Your task to perform on an android device: Go to notification settings Image 0: 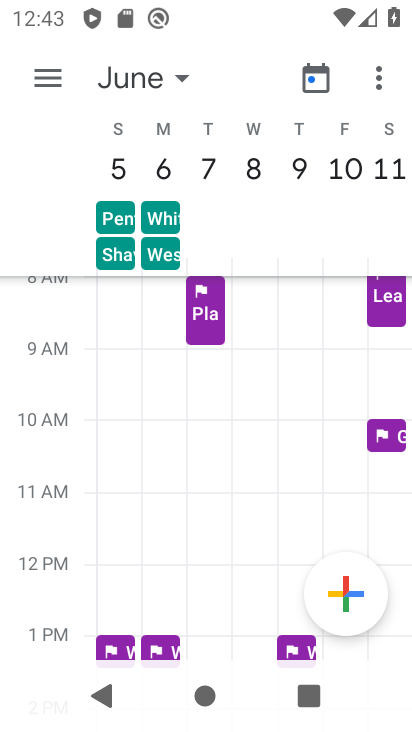
Step 0: press home button
Your task to perform on an android device: Go to notification settings Image 1: 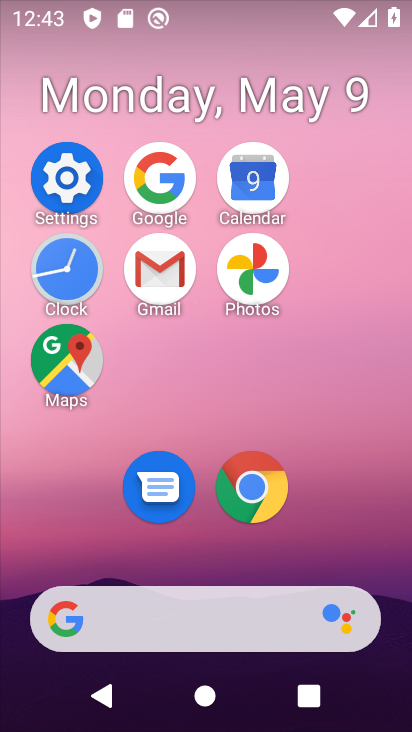
Step 1: click (89, 207)
Your task to perform on an android device: Go to notification settings Image 2: 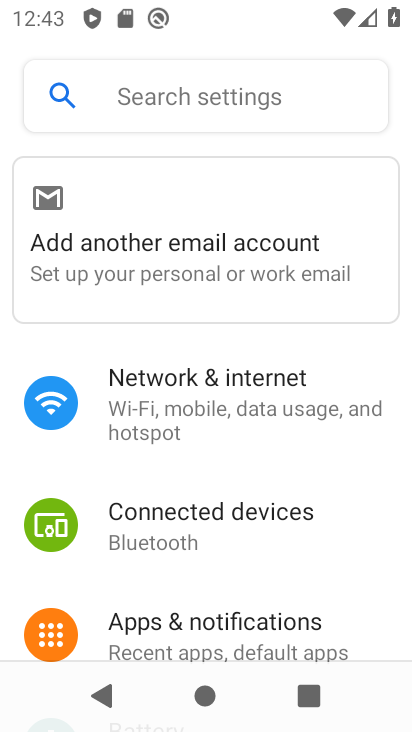
Step 2: click (273, 666)
Your task to perform on an android device: Go to notification settings Image 3: 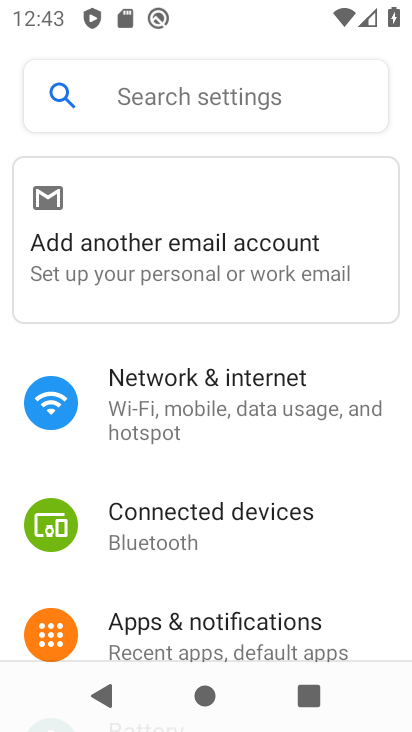
Step 3: click (274, 639)
Your task to perform on an android device: Go to notification settings Image 4: 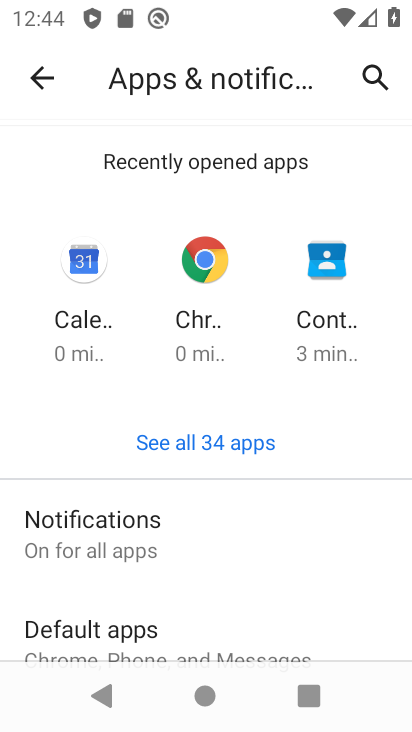
Step 4: task complete